Your task to perform on an android device: turn notification dots on Image 0: 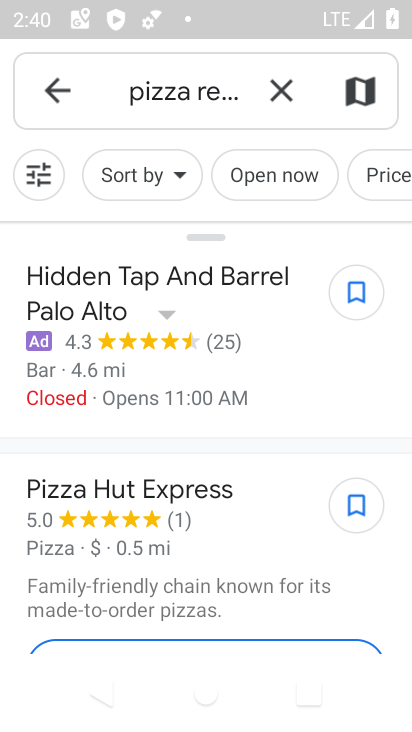
Step 0: press home button
Your task to perform on an android device: turn notification dots on Image 1: 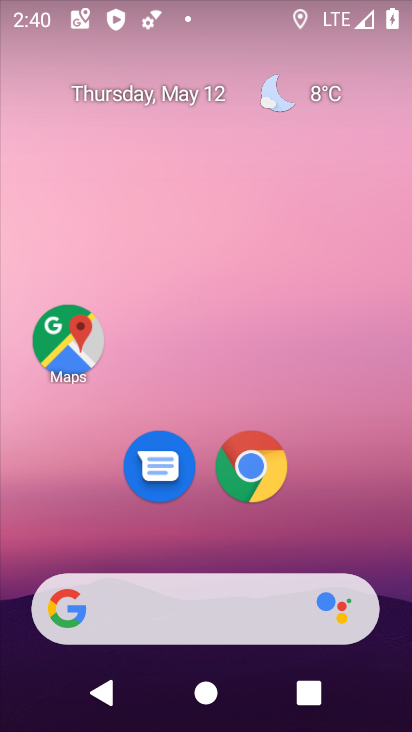
Step 1: drag from (267, 548) to (224, 134)
Your task to perform on an android device: turn notification dots on Image 2: 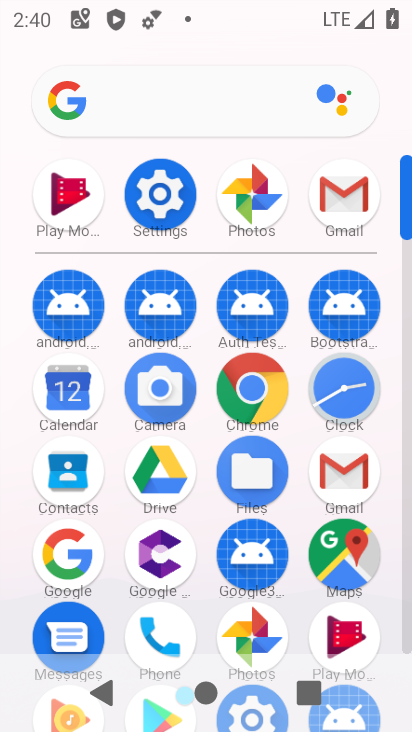
Step 2: click (158, 204)
Your task to perform on an android device: turn notification dots on Image 3: 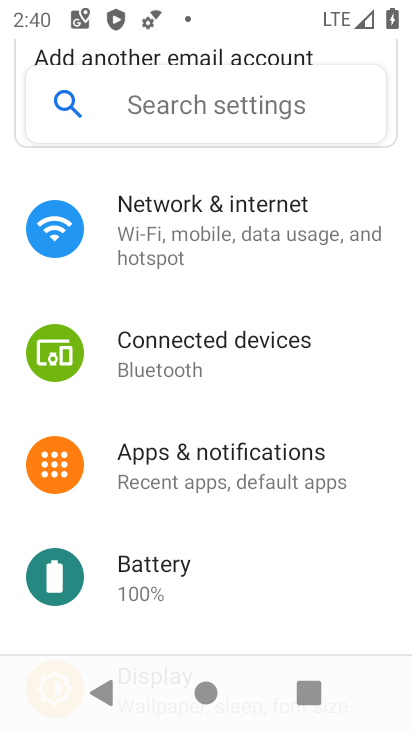
Step 3: click (207, 477)
Your task to perform on an android device: turn notification dots on Image 4: 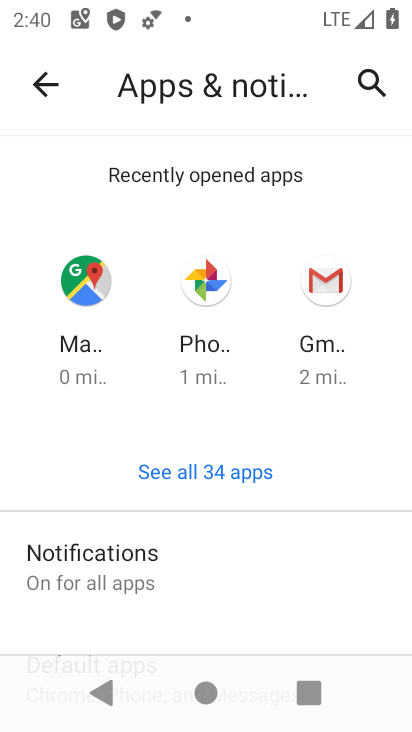
Step 4: drag from (174, 610) to (192, 188)
Your task to perform on an android device: turn notification dots on Image 5: 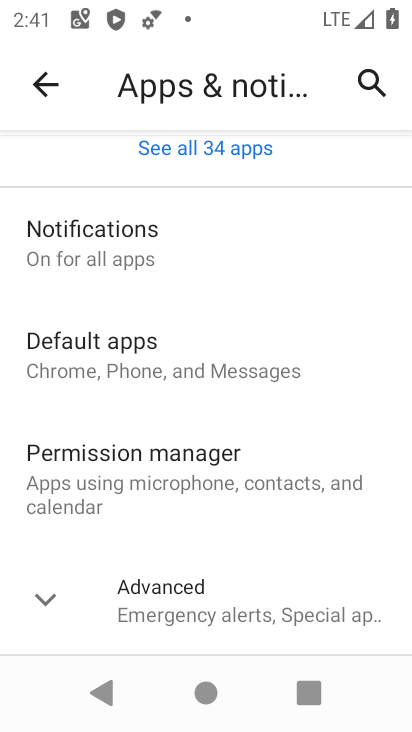
Step 5: click (108, 269)
Your task to perform on an android device: turn notification dots on Image 6: 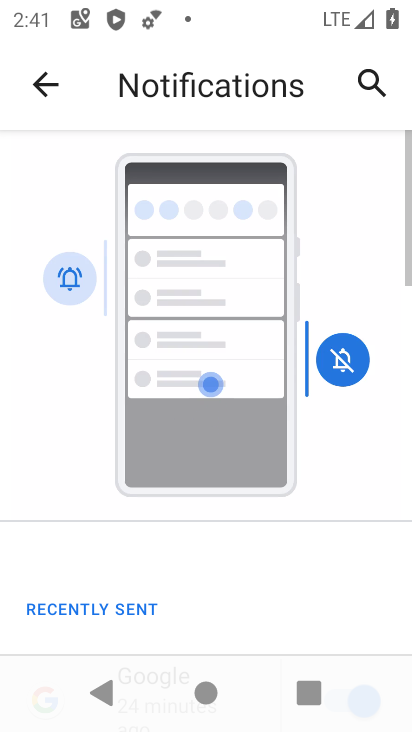
Step 6: drag from (146, 571) to (179, 298)
Your task to perform on an android device: turn notification dots on Image 7: 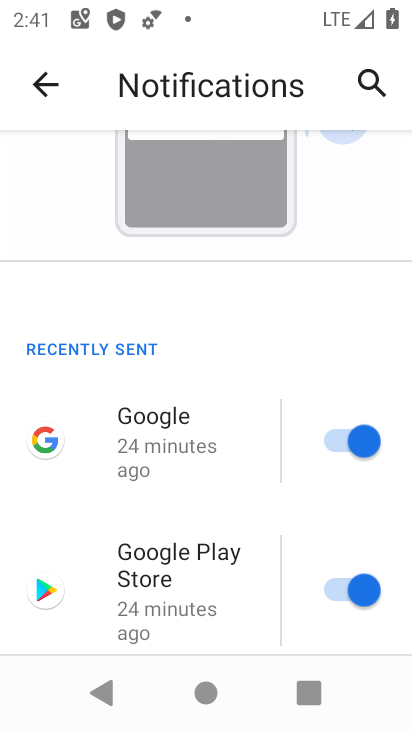
Step 7: drag from (145, 599) to (211, 217)
Your task to perform on an android device: turn notification dots on Image 8: 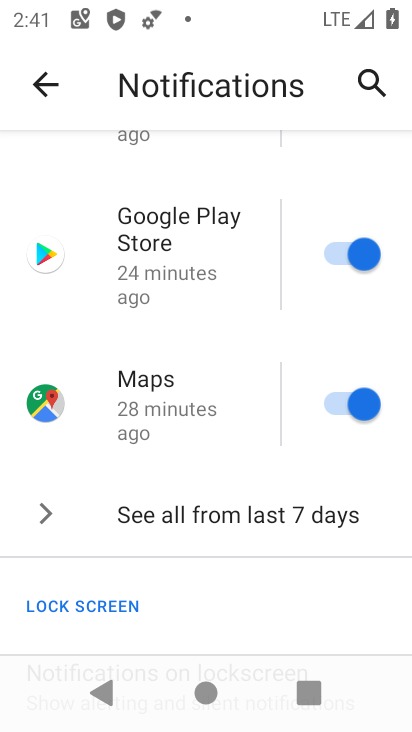
Step 8: drag from (177, 595) to (189, 243)
Your task to perform on an android device: turn notification dots on Image 9: 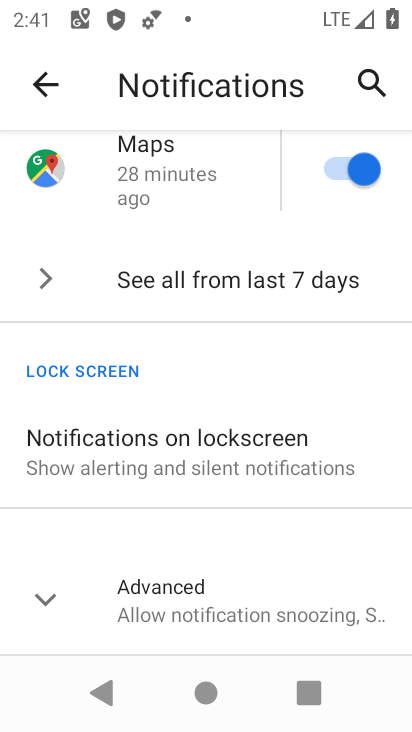
Step 9: click (222, 618)
Your task to perform on an android device: turn notification dots on Image 10: 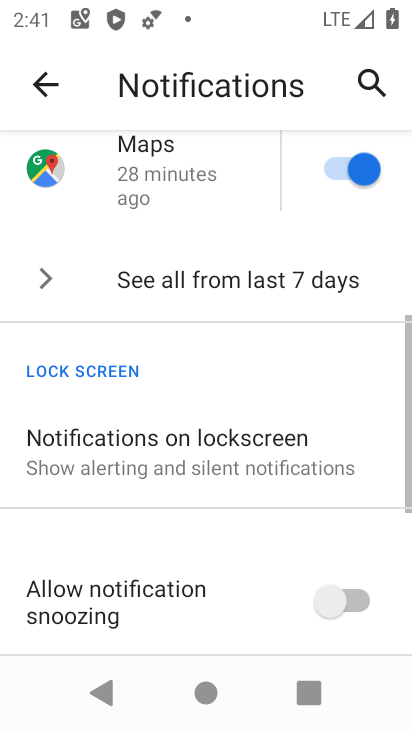
Step 10: task complete